Your task to perform on an android device: turn on location history Image 0: 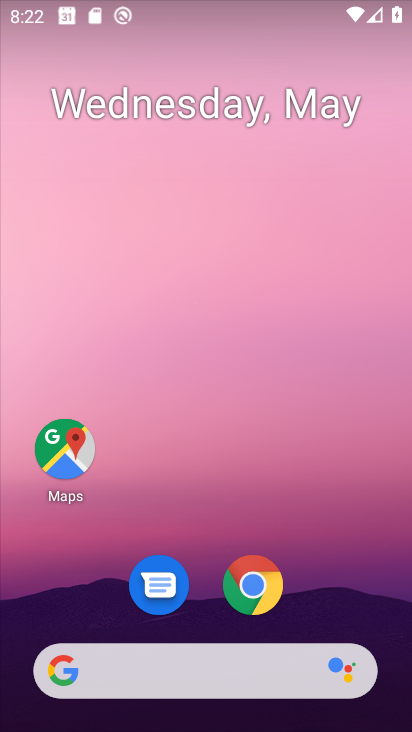
Step 0: drag from (340, 544) to (318, 62)
Your task to perform on an android device: turn on location history Image 1: 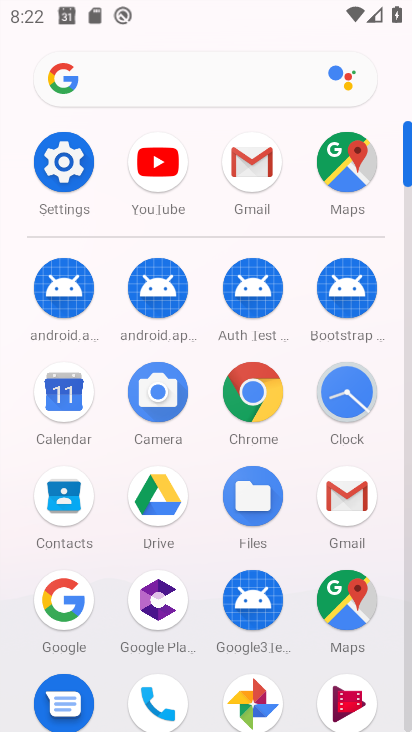
Step 1: click (66, 151)
Your task to perform on an android device: turn on location history Image 2: 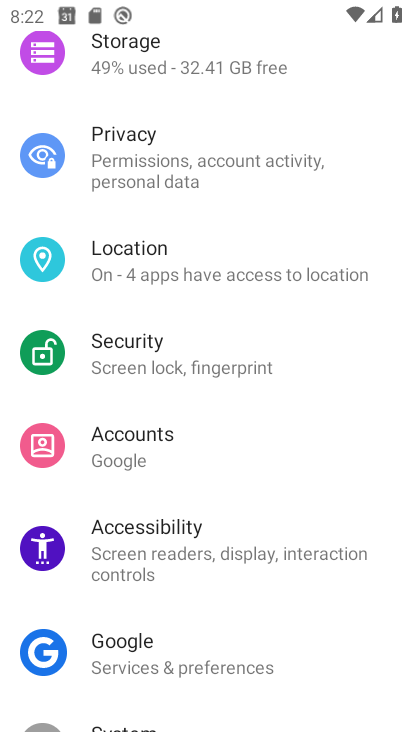
Step 2: click (216, 255)
Your task to perform on an android device: turn on location history Image 3: 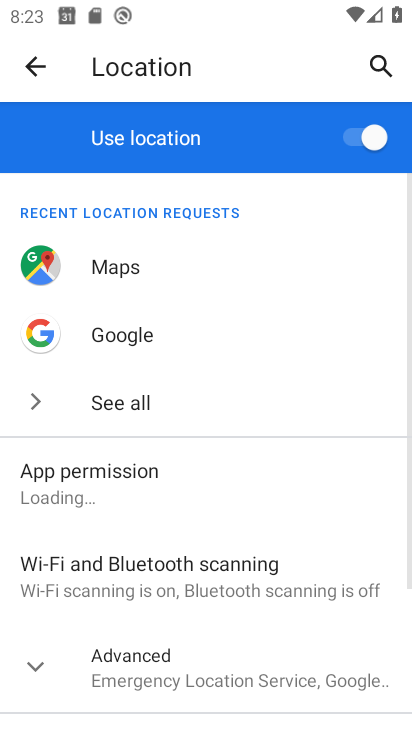
Step 3: drag from (221, 511) to (197, 429)
Your task to perform on an android device: turn on location history Image 4: 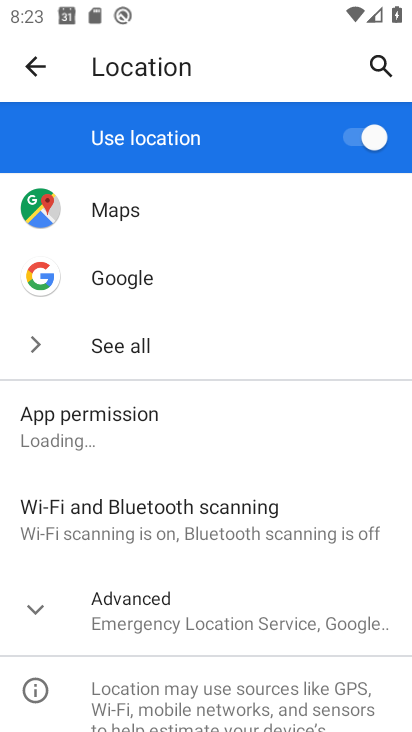
Step 4: click (29, 596)
Your task to perform on an android device: turn on location history Image 5: 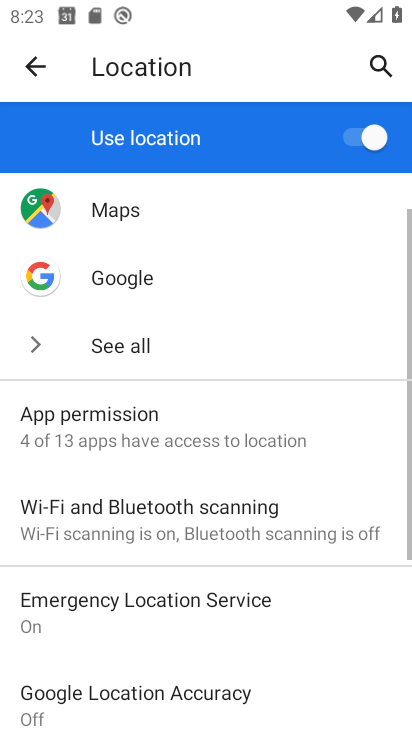
Step 5: drag from (210, 617) to (188, 310)
Your task to perform on an android device: turn on location history Image 6: 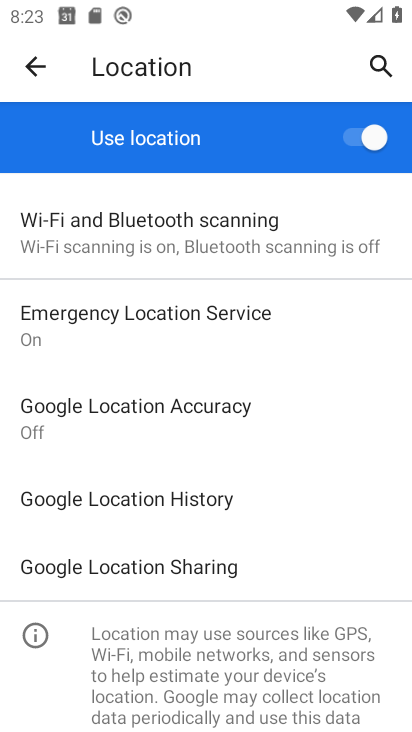
Step 6: click (202, 497)
Your task to perform on an android device: turn on location history Image 7: 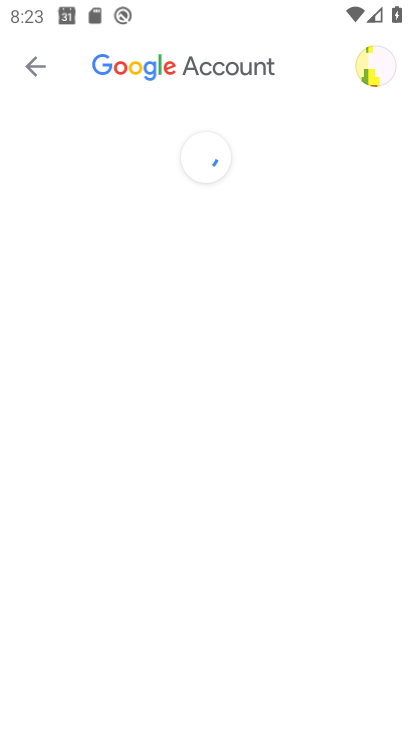
Step 7: task complete